Your task to perform on an android device: turn off airplane mode Image 0: 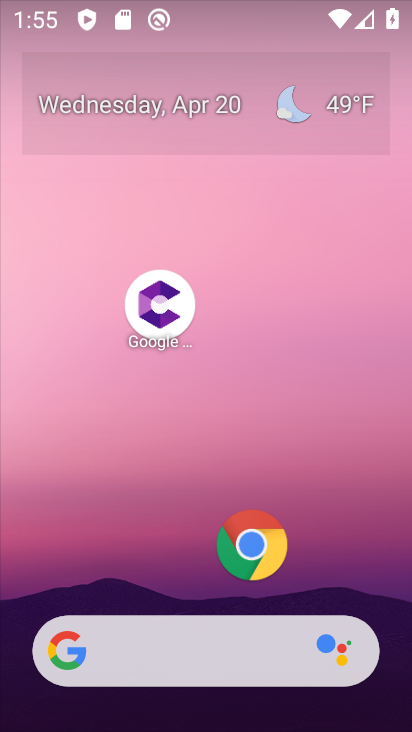
Step 0: drag from (198, 574) to (276, 35)
Your task to perform on an android device: turn off airplane mode Image 1: 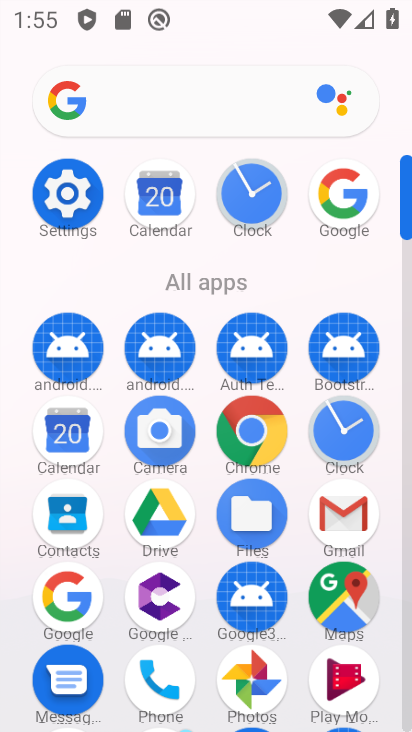
Step 1: click (68, 195)
Your task to perform on an android device: turn off airplane mode Image 2: 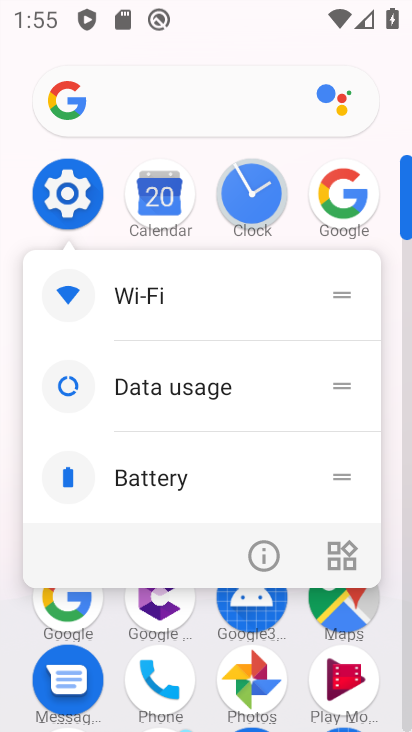
Step 2: click (68, 195)
Your task to perform on an android device: turn off airplane mode Image 3: 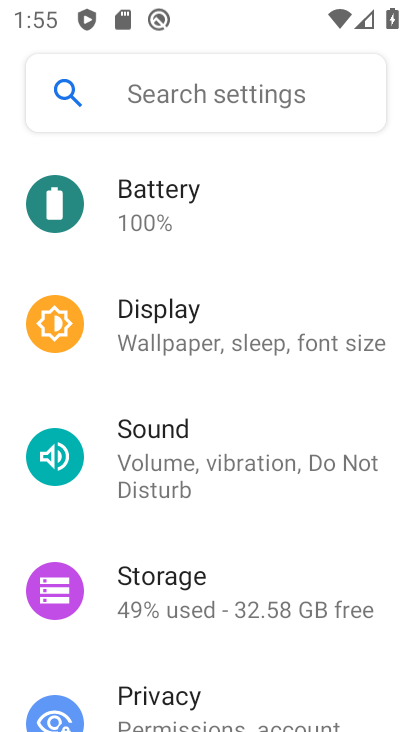
Step 3: drag from (276, 240) to (273, 372)
Your task to perform on an android device: turn off airplane mode Image 4: 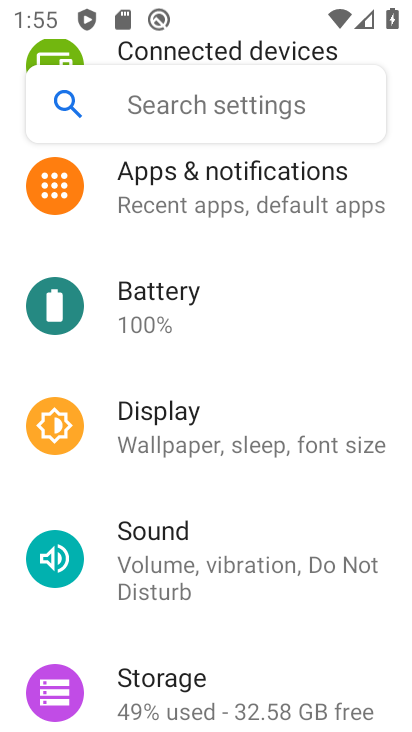
Step 4: drag from (259, 280) to (257, 366)
Your task to perform on an android device: turn off airplane mode Image 5: 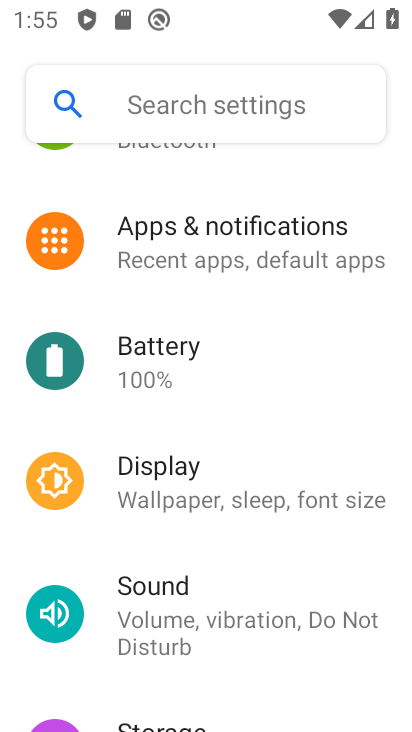
Step 5: drag from (229, 185) to (249, 304)
Your task to perform on an android device: turn off airplane mode Image 6: 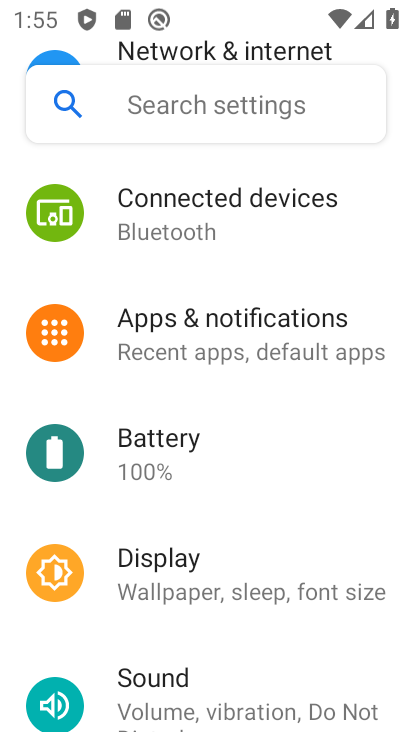
Step 6: drag from (273, 222) to (297, 334)
Your task to perform on an android device: turn off airplane mode Image 7: 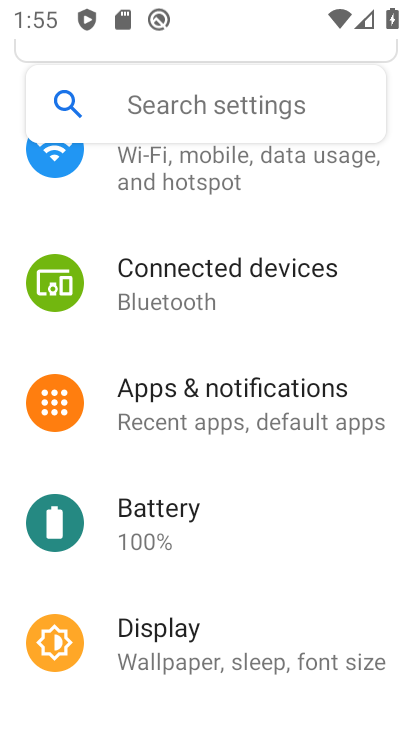
Step 7: drag from (282, 230) to (311, 370)
Your task to perform on an android device: turn off airplane mode Image 8: 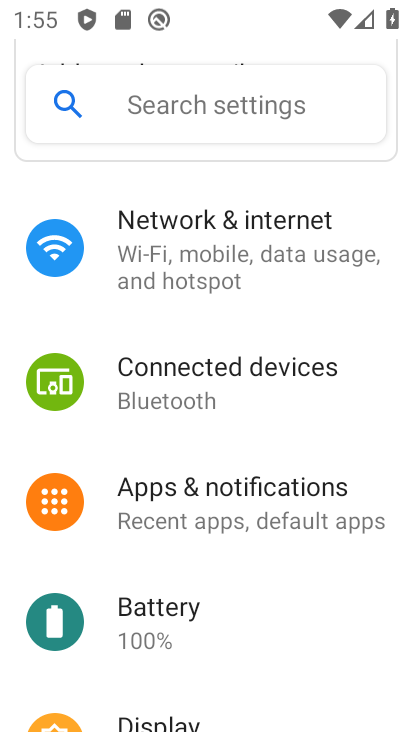
Step 8: click (268, 225)
Your task to perform on an android device: turn off airplane mode Image 9: 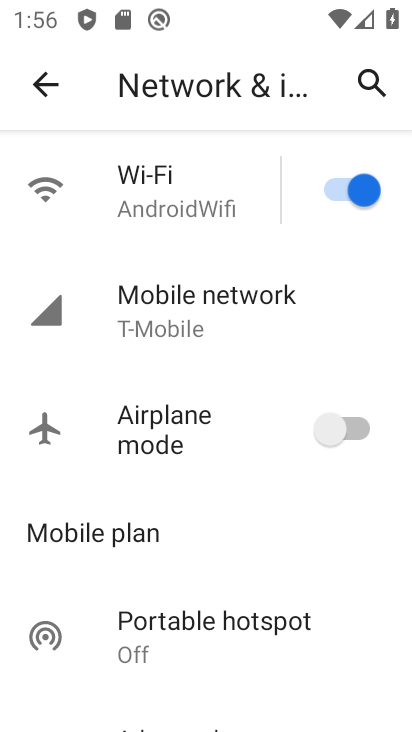
Step 9: task complete